Your task to perform on an android device: What's the weather? Image 0: 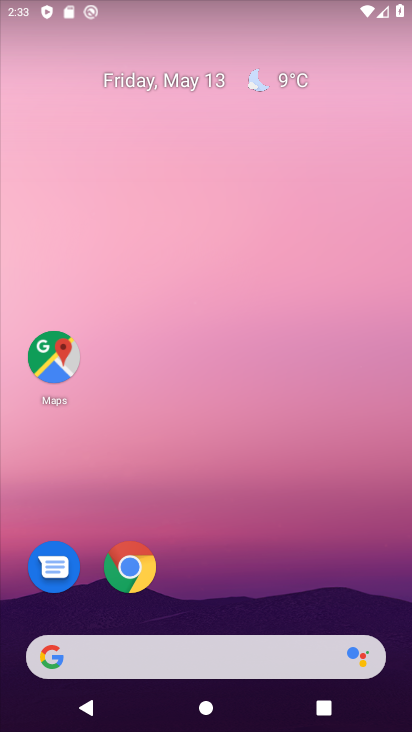
Step 0: click (189, 650)
Your task to perform on an android device: What's the weather? Image 1: 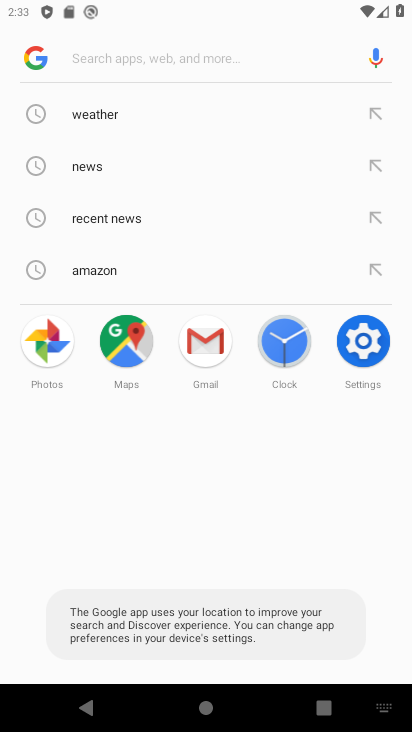
Step 1: click (111, 111)
Your task to perform on an android device: What's the weather? Image 2: 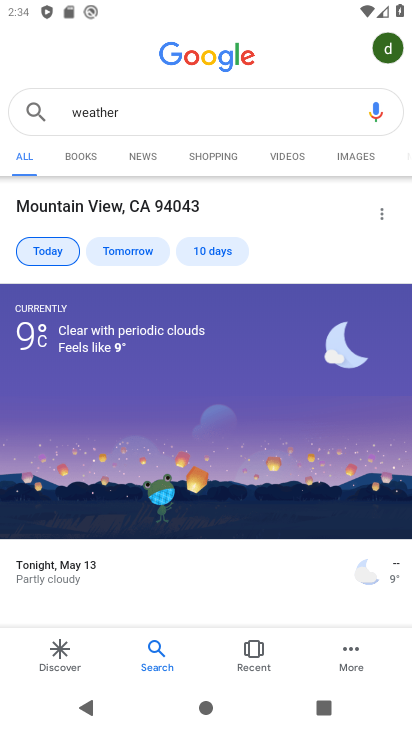
Step 2: task complete